Your task to perform on an android device: toggle javascript in the chrome app Image 0: 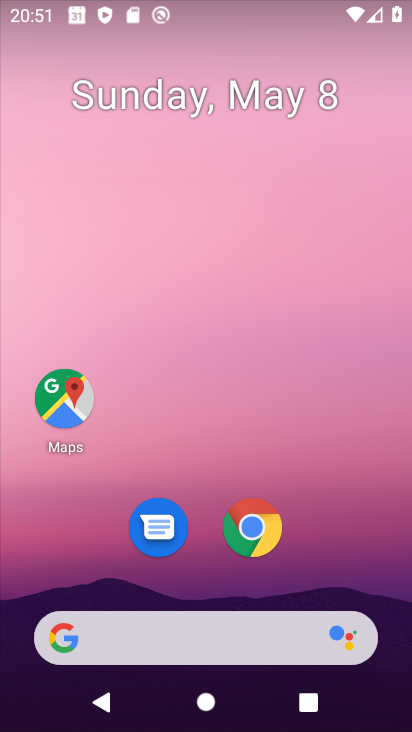
Step 0: click (249, 529)
Your task to perform on an android device: toggle javascript in the chrome app Image 1: 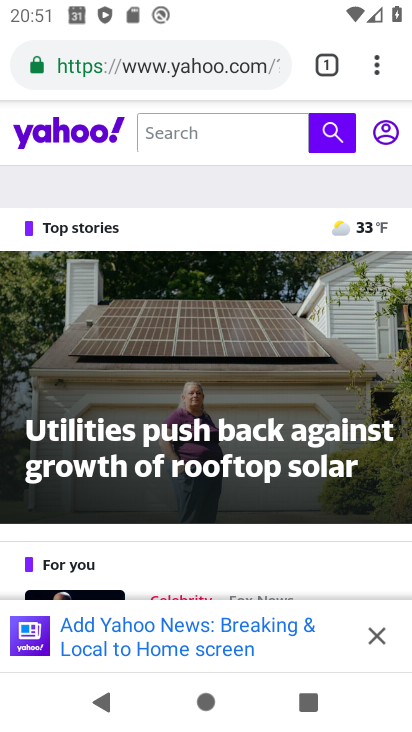
Step 1: click (365, 61)
Your task to perform on an android device: toggle javascript in the chrome app Image 2: 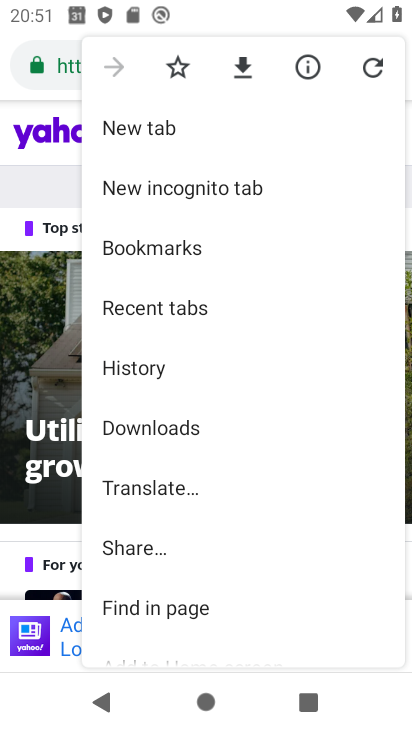
Step 2: drag from (273, 529) to (244, 88)
Your task to perform on an android device: toggle javascript in the chrome app Image 3: 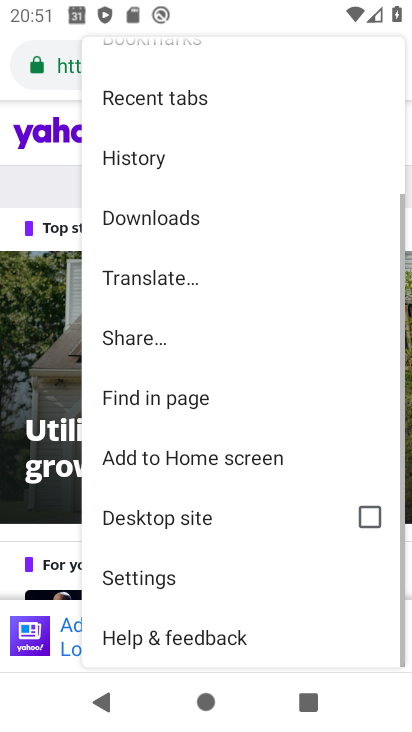
Step 3: click (165, 577)
Your task to perform on an android device: toggle javascript in the chrome app Image 4: 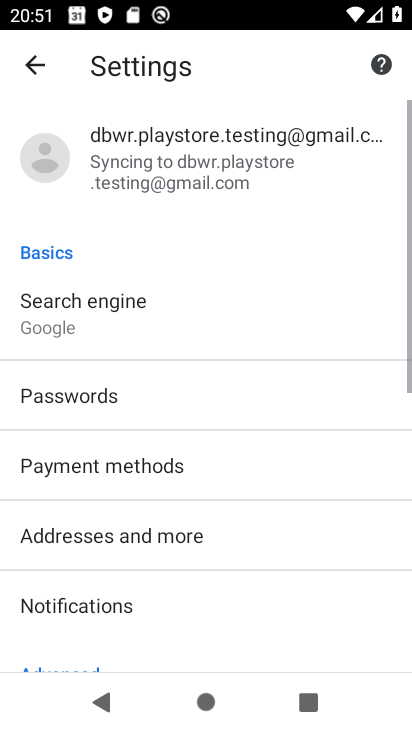
Step 4: drag from (231, 596) to (260, 203)
Your task to perform on an android device: toggle javascript in the chrome app Image 5: 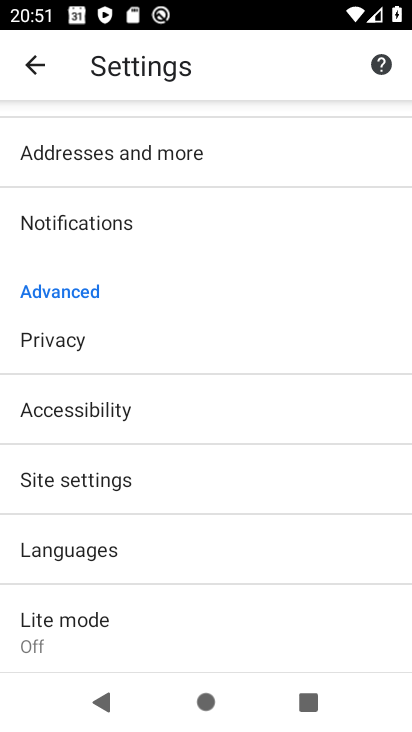
Step 5: click (118, 479)
Your task to perform on an android device: toggle javascript in the chrome app Image 6: 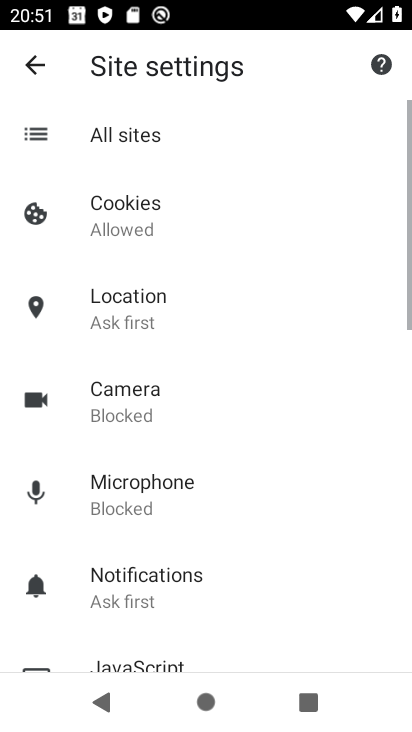
Step 6: drag from (230, 589) to (237, 337)
Your task to perform on an android device: toggle javascript in the chrome app Image 7: 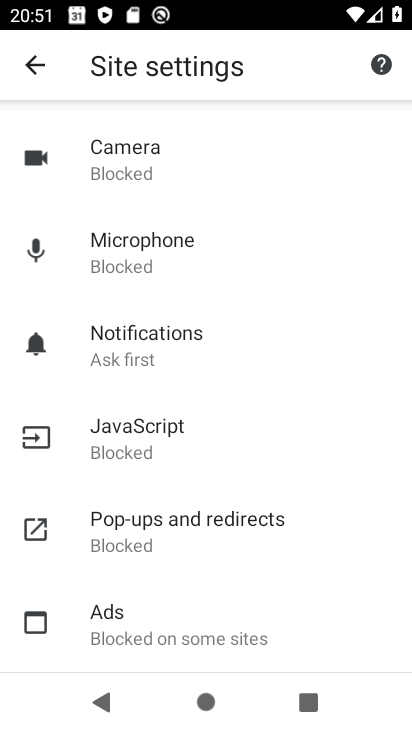
Step 7: click (148, 424)
Your task to perform on an android device: toggle javascript in the chrome app Image 8: 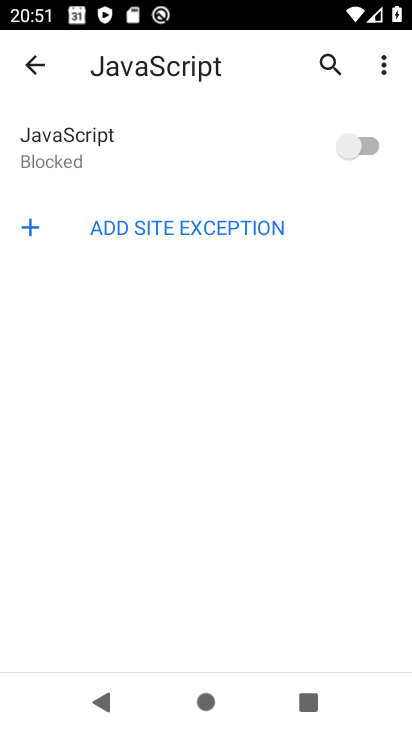
Step 8: click (351, 151)
Your task to perform on an android device: toggle javascript in the chrome app Image 9: 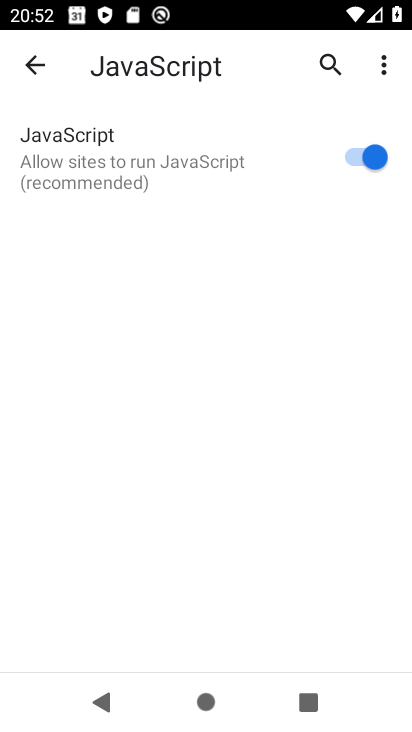
Step 9: task complete